Your task to perform on an android device: turn off wifi Image 0: 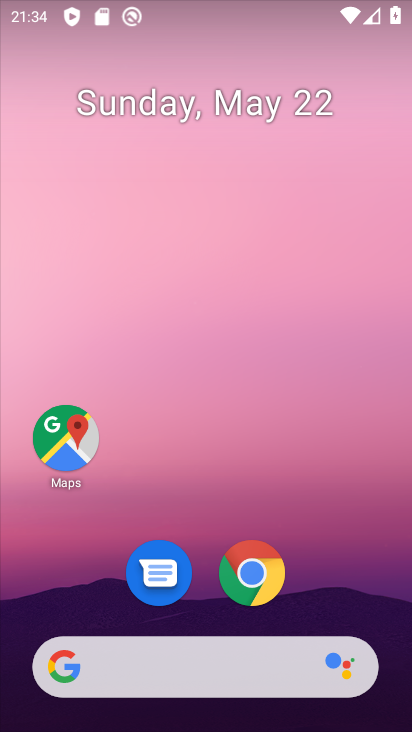
Step 0: drag from (403, 674) to (403, 88)
Your task to perform on an android device: turn off wifi Image 1: 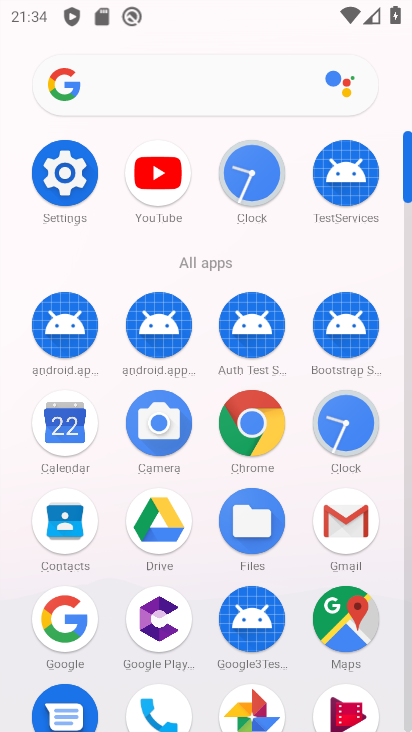
Step 1: drag from (218, 0) to (0, 192)
Your task to perform on an android device: turn off wifi Image 2: 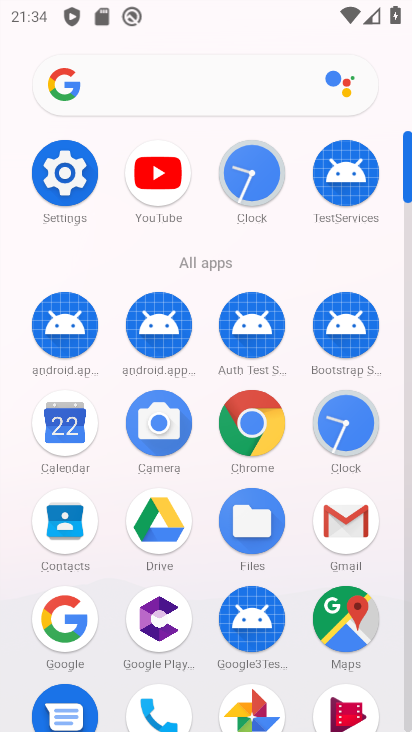
Step 2: drag from (194, 64) to (202, 161)
Your task to perform on an android device: turn off wifi Image 3: 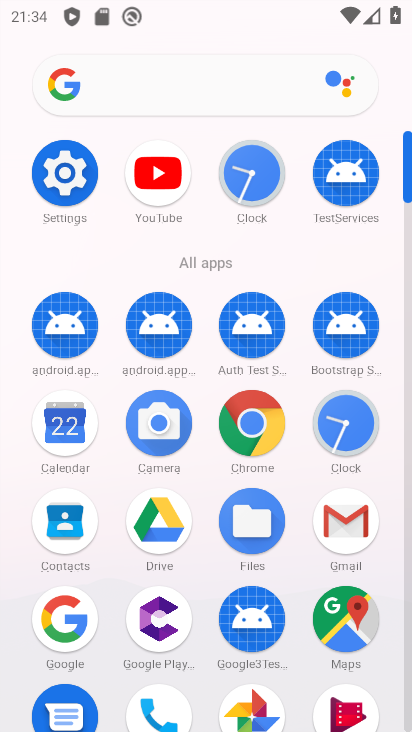
Step 3: click (215, 0)
Your task to perform on an android device: turn off wifi Image 4: 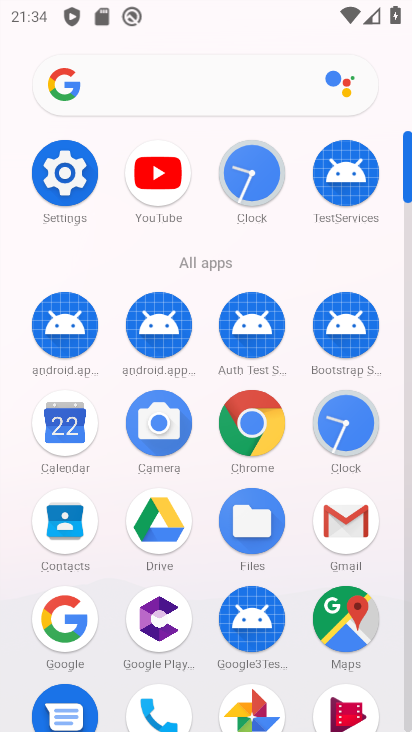
Step 4: drag from (192, 0) to (217, 693)
Your task to perform on an android device: turn off wifi Image 5: 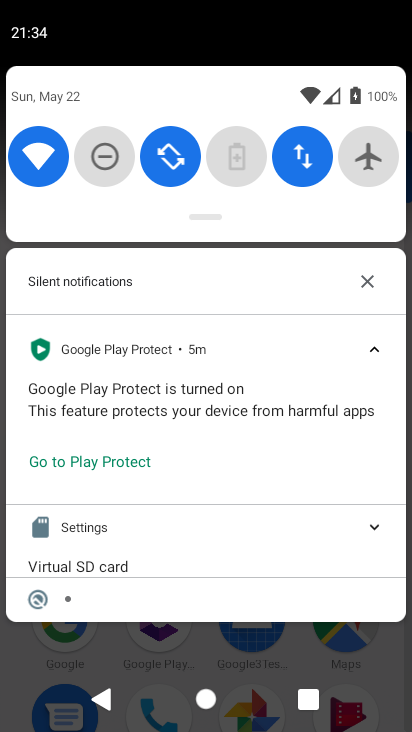
Step 5: click (43, 176)
Your task to perform on an android device: turn off wifi Image 6: 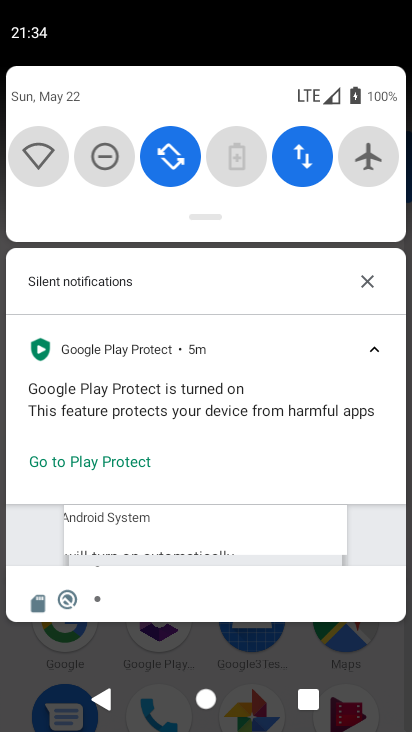
Step 6: task complete